Your task to perform on an android device: Go to Yahoo.com Image 0: 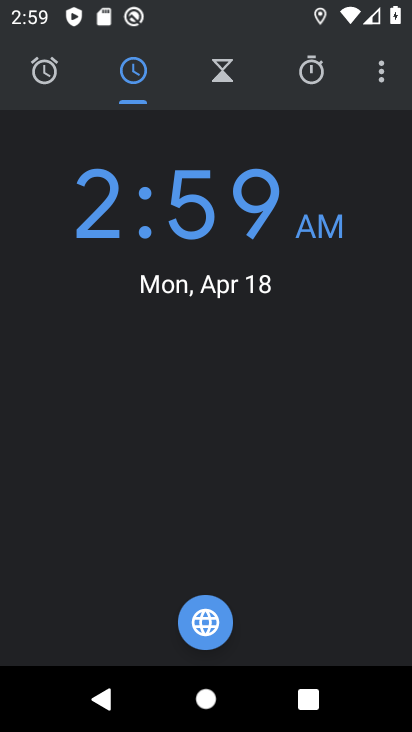
Step 0: press home button
Your task to perform on an android device: Go to Yahoo.com Image 1: 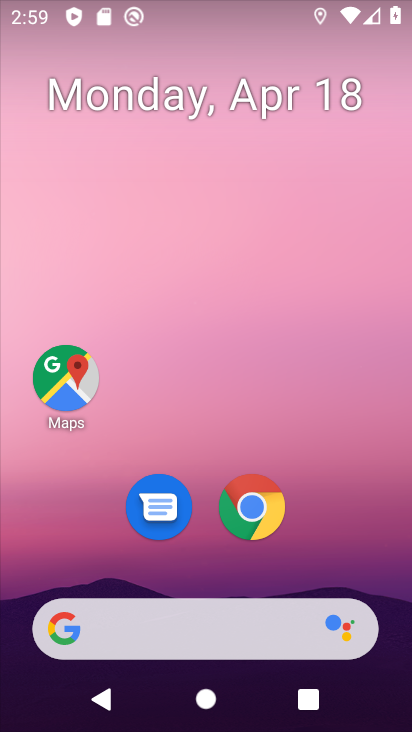
Step 1: click (172, 609)
Your task to perform on an android device: Go to Yahoo.com Image 2: 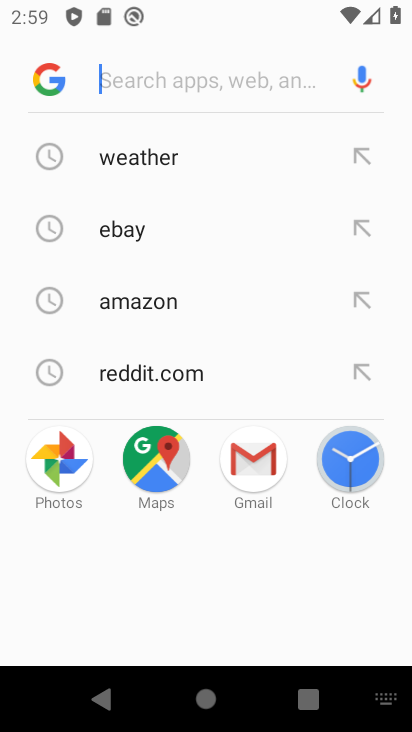
Step 2: type "Yahoo.com"
Your task to perform on an android device: Go to Yahoo.com Image 3: 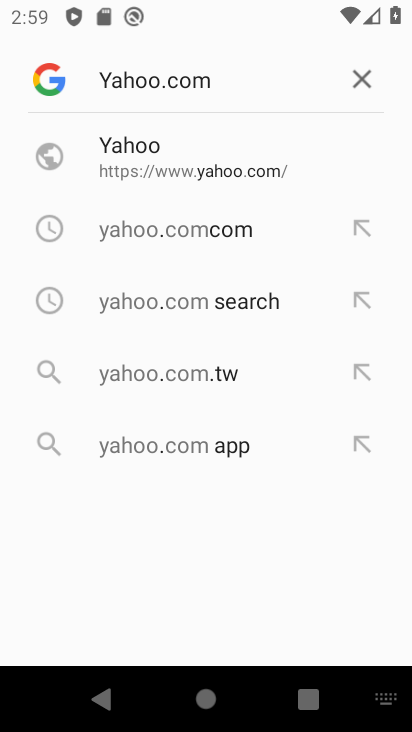
Step 3: click (167, 143)
Your task to perform on an android device: Go to Yahoo.com Image 4: 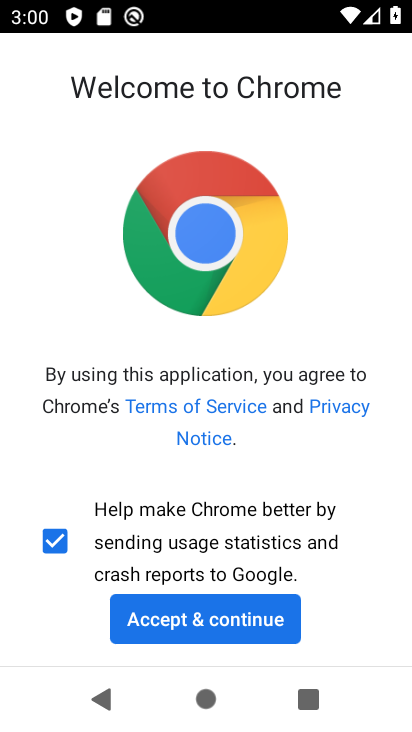
Step 4: click (217, 623)
Your task to perform on an android device: Go to Yahoo.com Image 5: 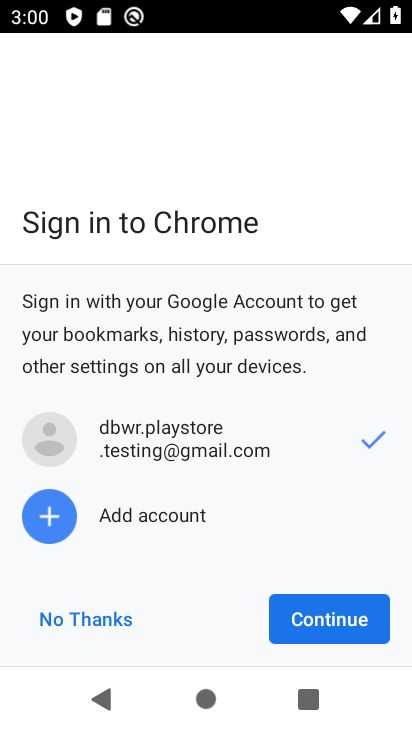
Step 5: click (297, 632)
Your task to perform on an android device: Go to Yahoo.com Image 6: 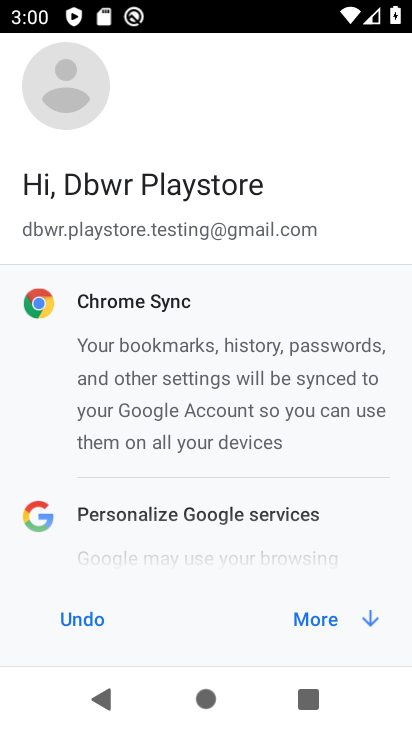
Step 6: click (315, 618)
Your task to perform on an android device: Go to Yahoo.com Image 7: 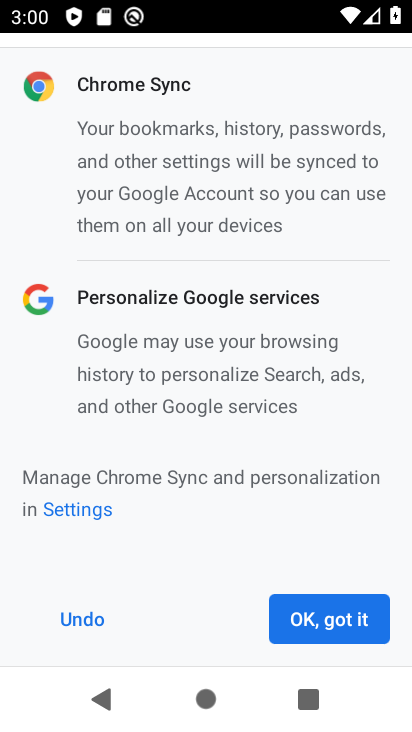
Step 7: click (315, 618)
Your task to perform on an android device: Go to Yahoo.com Image 8: 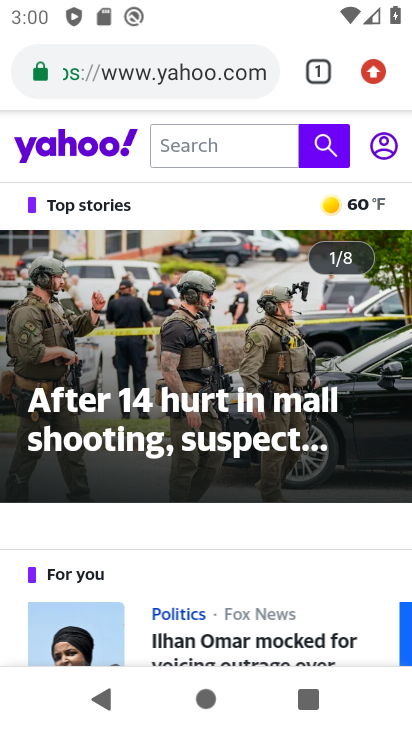
Step 8: task complete